Your task to perform on an android device: turn pop-ups off in chrome Image 0: 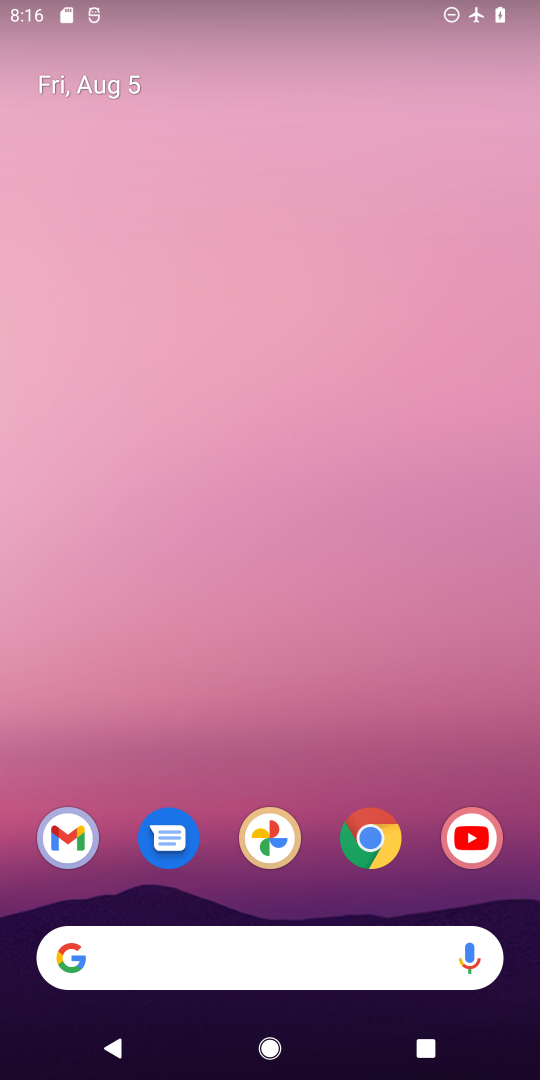
Step 0: click (361, 845)
Your task to perform on an android device: turn pop-ups off in chrome Image 1: 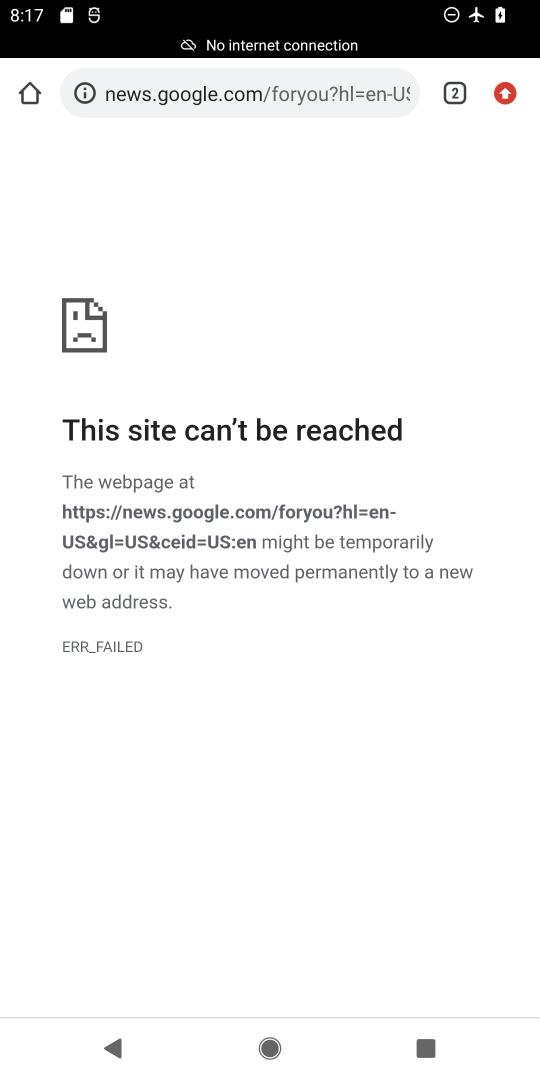
Step 1: click (509, 89)
Your task to perform on an android device: turn pop-ups off in chrome Image 2: 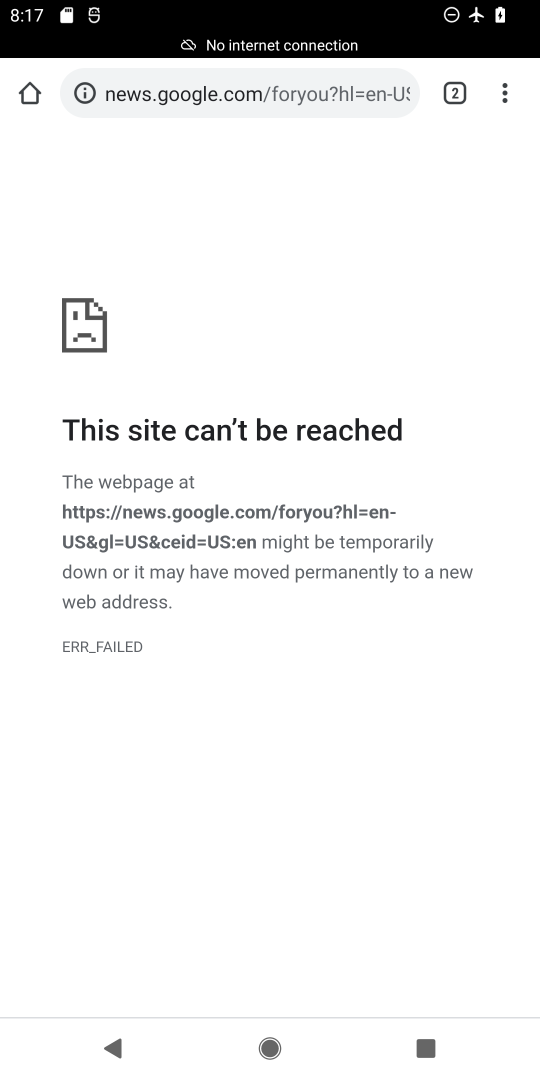
Step 2: click (508, 98)
Your task to perform on an android device: turn pop-ups off in chrome Image 3: 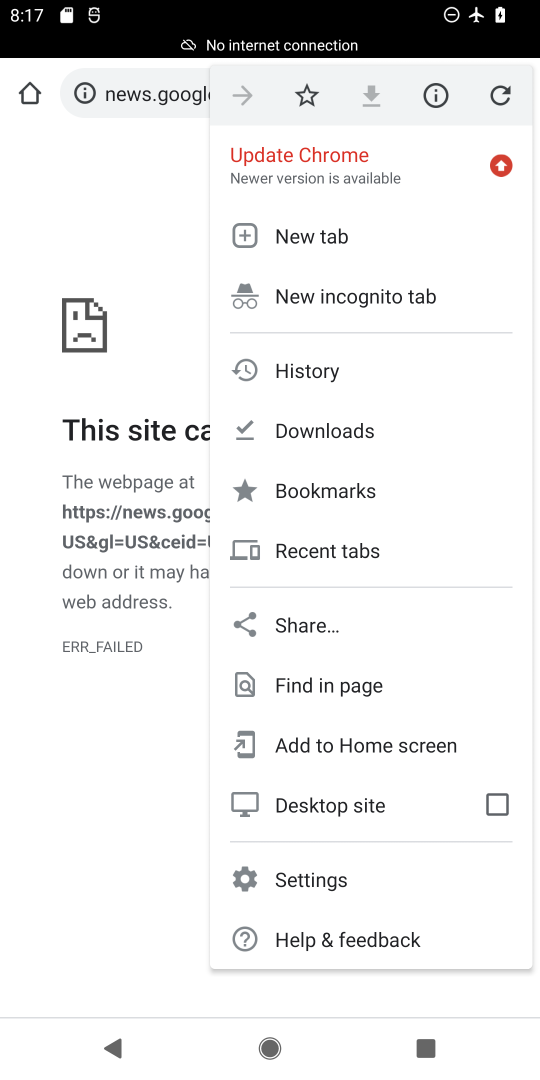
Step 3: click (309, 870)
Your task to perform on an android device: turn pop-ups off in chrome Image 4: 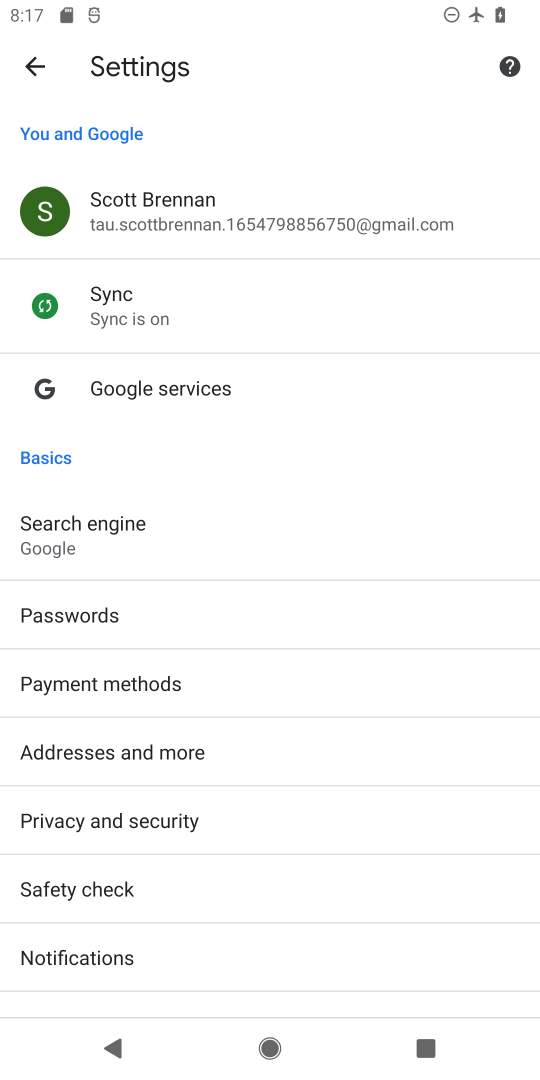
Step 4: drag from (114, 940) to (198, 383)
Your task to perform on an android device: turn pop-ups off in chrome Image 5: 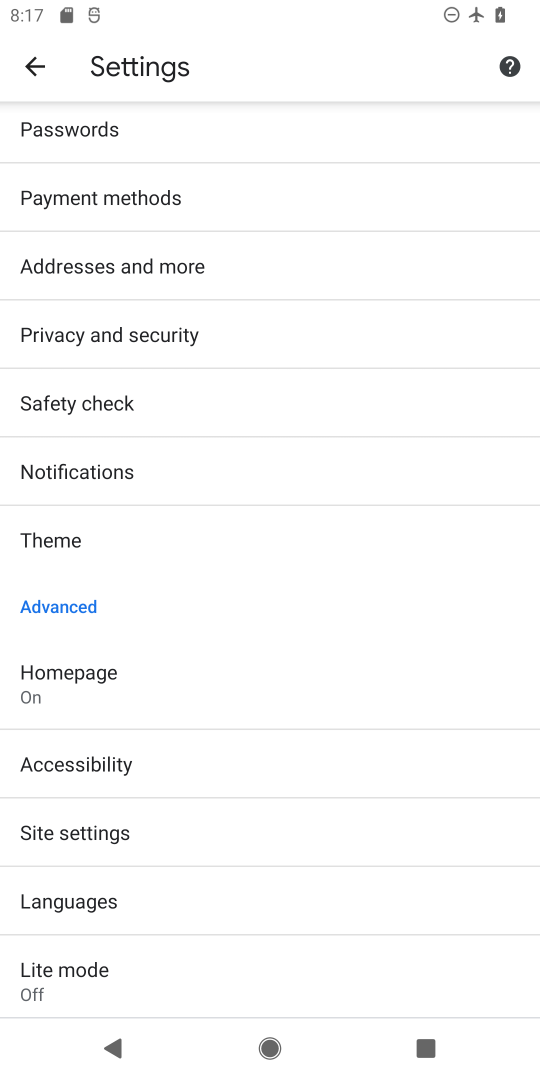
Step 5: click (60, 828)
Your task to perform on an android device: turn pop-ups off in chrome Image 6: 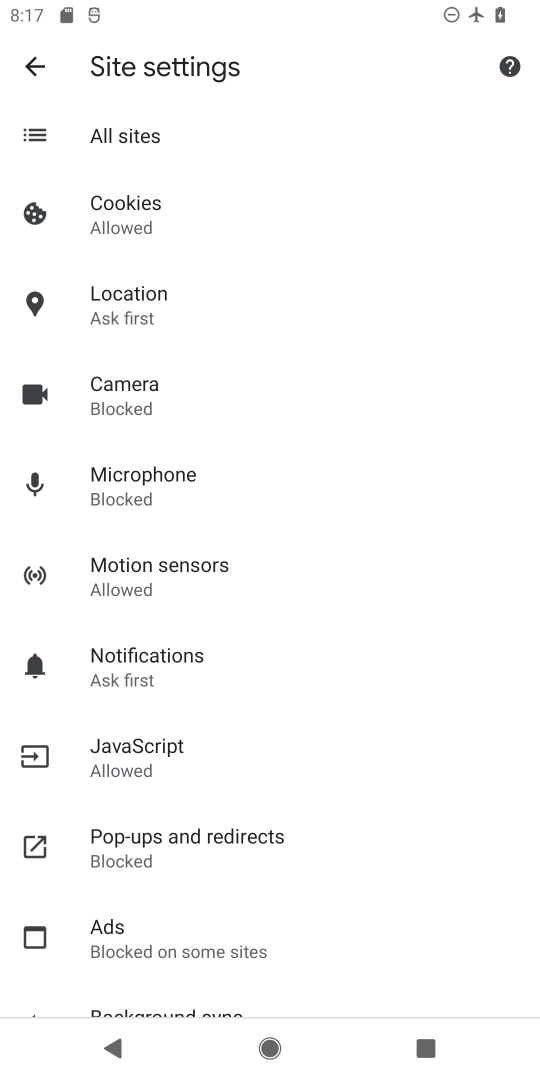
Step 6: click (211, 840)
Your task to perform on an android device: turn pop-ups off in chrome Image 7: 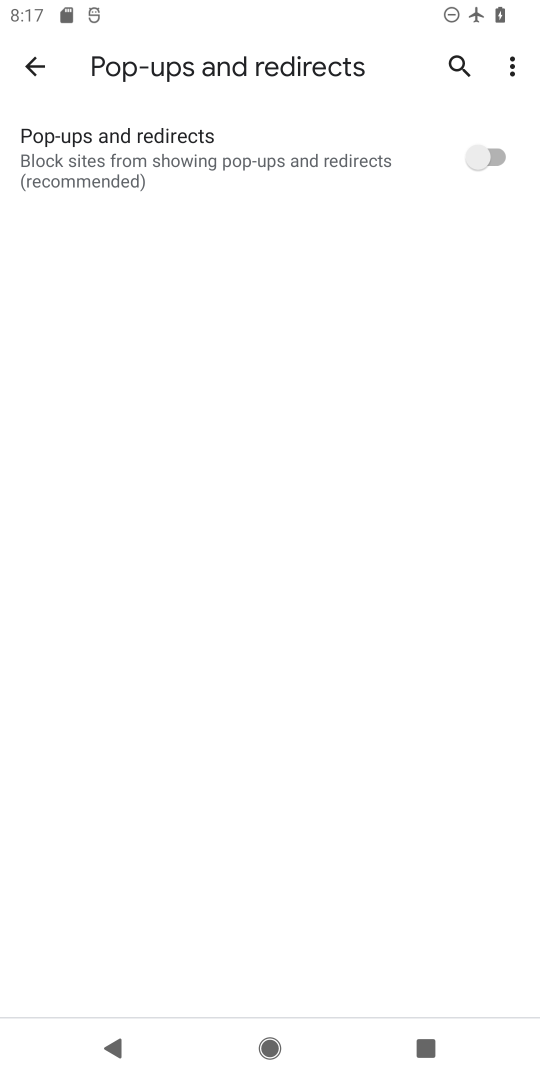
Step 7: task complete